Your task to perform on an android device: turn on the 12-hour format for clock Image 0: 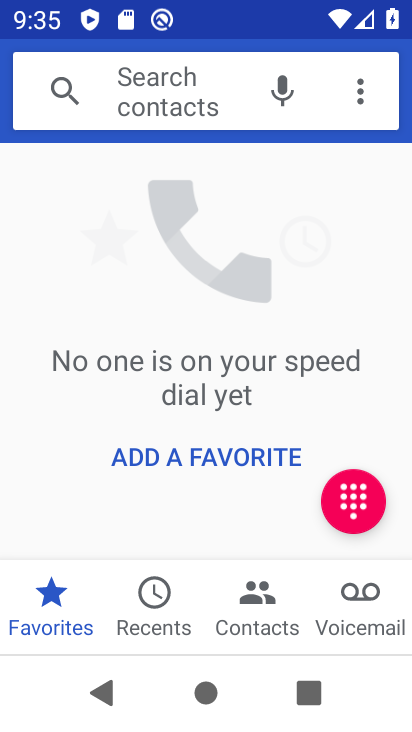
Step 0: press home button
Your task to perform on an android device: turn on the 12-hour format for clock Image 1: 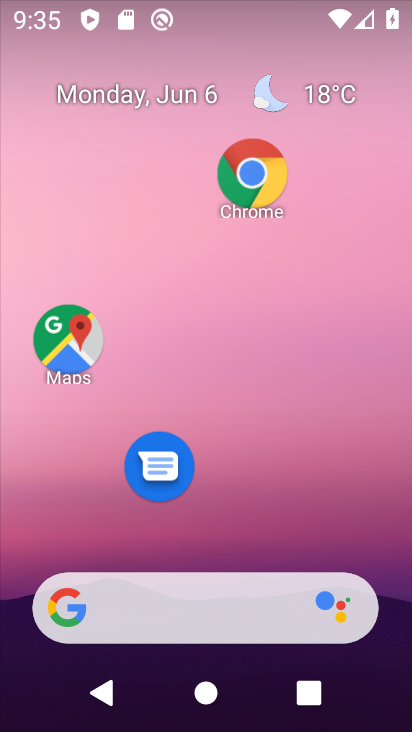
Step 1: drag from (247, 546) to (144, 5)
Your task to perform on an android device: turn on the 12-hour format for clock Image 2: 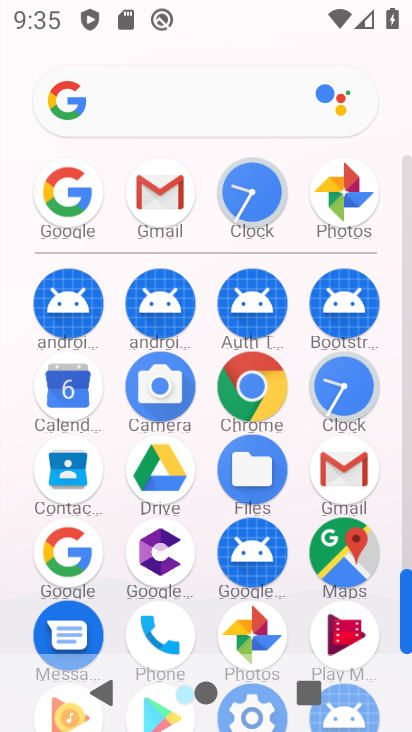
Step 2: click (348, 386)
Your task to perform on an android device: turn on the 12-hour format for clock Image 3: 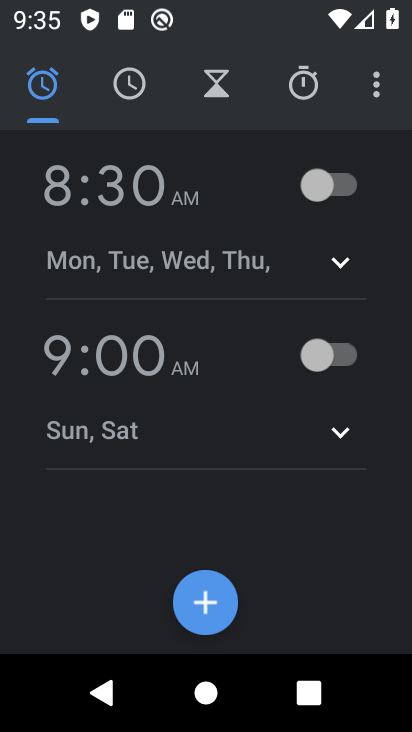
Step 3: click (377, 101)
Your task to perform on an android device: turn on the 12-hour format for clock Image 4: 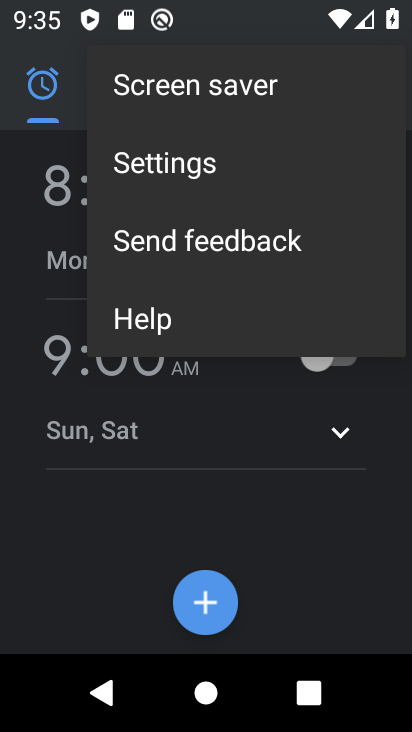
Step 4: click (190, 182)
Your task to perform on an android device: turn on the 12-hour format for clock Image 5: 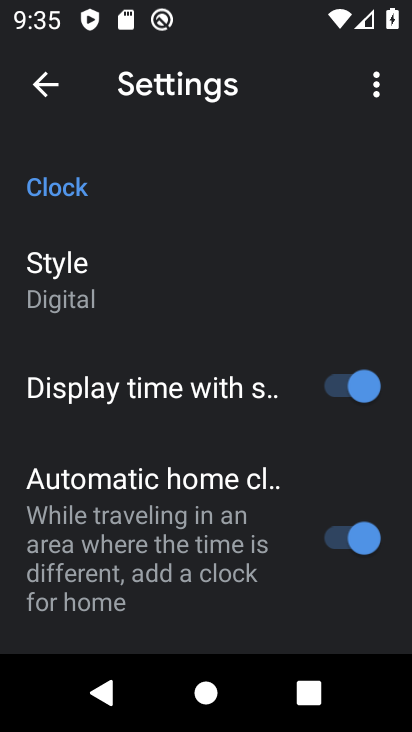
Step 5: click (266, 121)
Your task to perform on an android device: turn on the 12-hour format for clock Image 6: 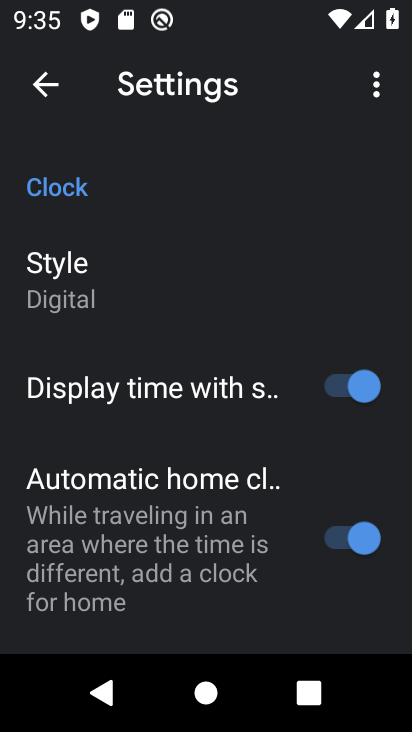
Step 6: drag from (174, 579) to (186, 221)
Your task to perform on an android device: turn on the 12-hour format for clock Image 7: 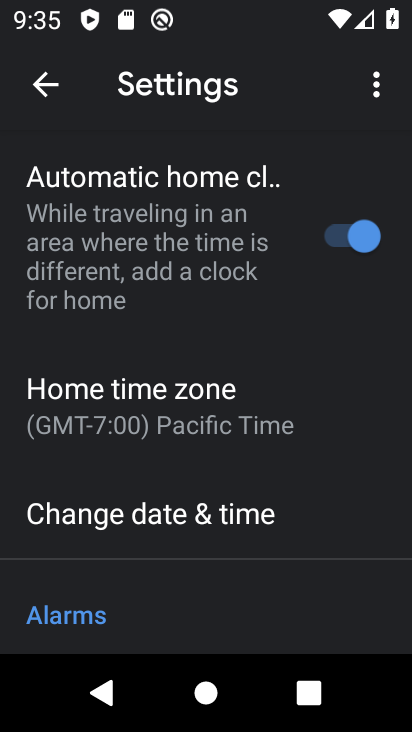
Step 7: click (165, 519)
Your task to perform on an android device: turn on the 12-hour format for clock Image 8: 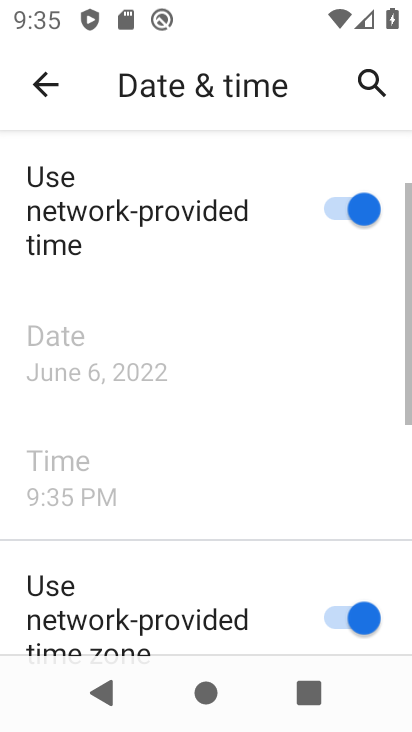
Step 8: drag from (197, 562) to (249, 146)
Your task to perform on an android device: turn on the 12-hour format for clock Image 9: 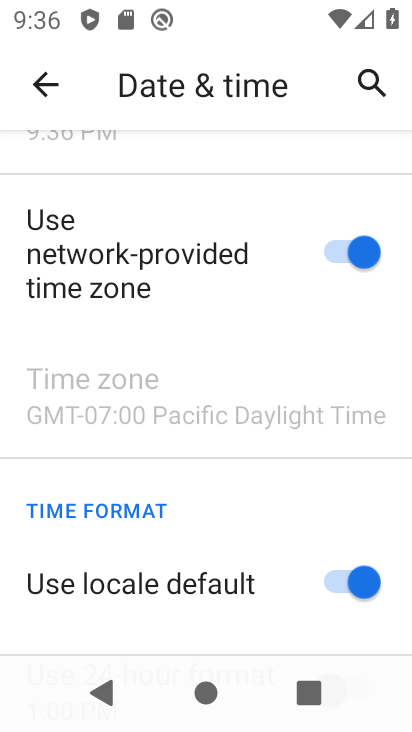
Step 9: drag from (269, 586) to (268, 187)
Your task to perform on an android device: turn on the 12-hour format for clock Image 10: 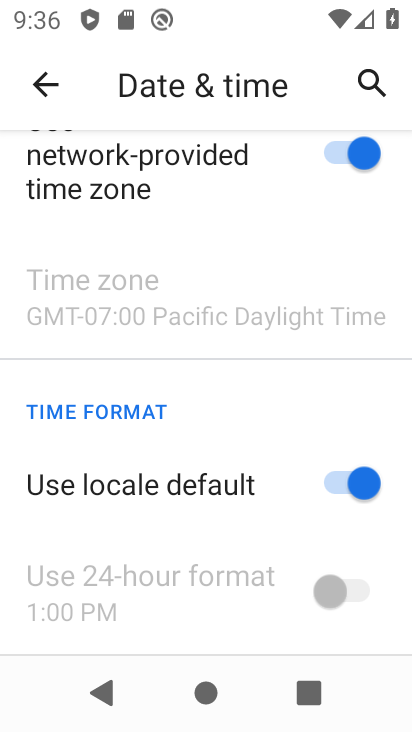
Step 10: click (323, 494)
Your task to perform on an android device: turn on the 12-hour format for clock Image 11: 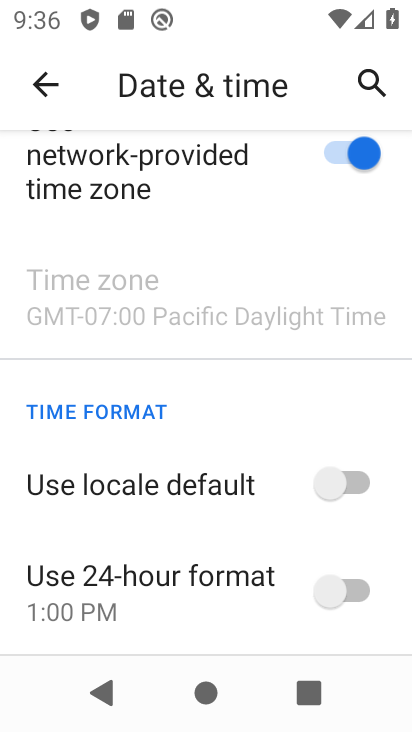
Step 11: click (360, 490)
Your task to perform on an android device: turn on the 12-hour format for clock Image 12: 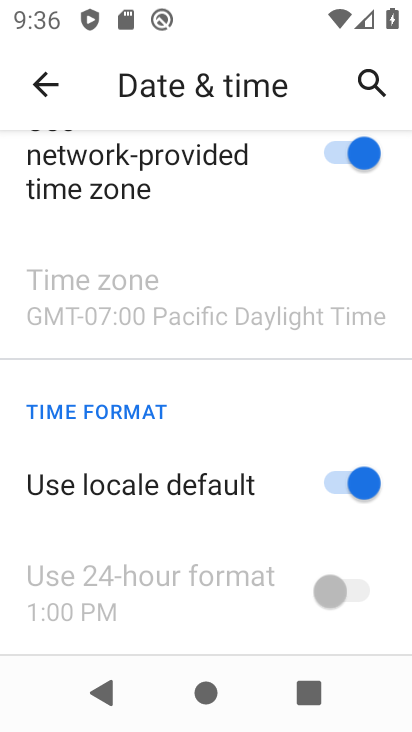
Step 12: task complete